Your task to perform on an android device: open chrome and create a bookmark for the current page Image 0: 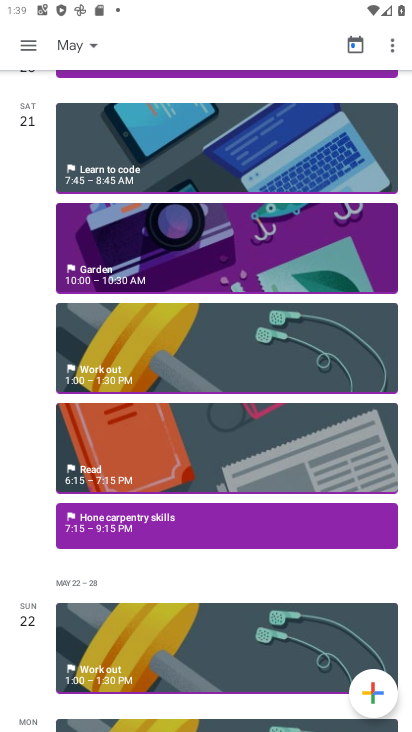
Step 0: press home button
Your task to perform on an android device: open chrome and create a bookmark for the current page Image 1: 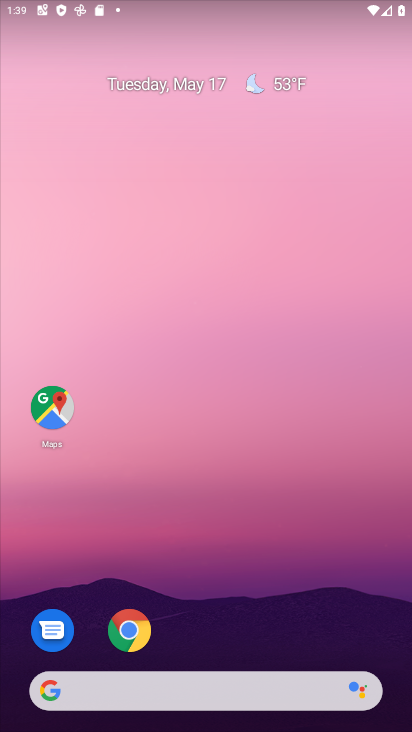
Step 1: drag from (217, 714) to (263, 217)
Your task to perform on an android device: open chrome and create a bookmark for the current page Image 2: 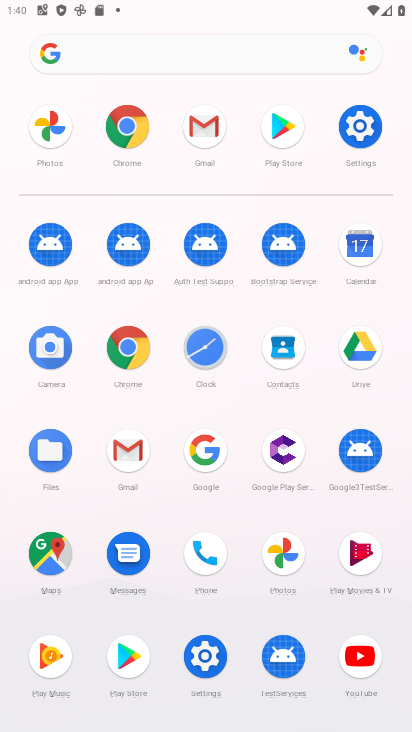
Step 2: click (131, 366)
Your task to perform on an android device: open chrome and create a bookmark for the current page Image 3: 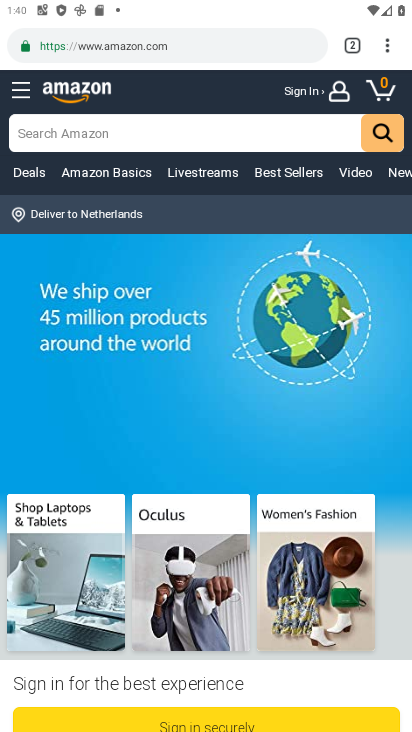
Step 3: click (227, 46)
Your task to perform on an android device: open chrome and create a bookmark for the current page Image 4: 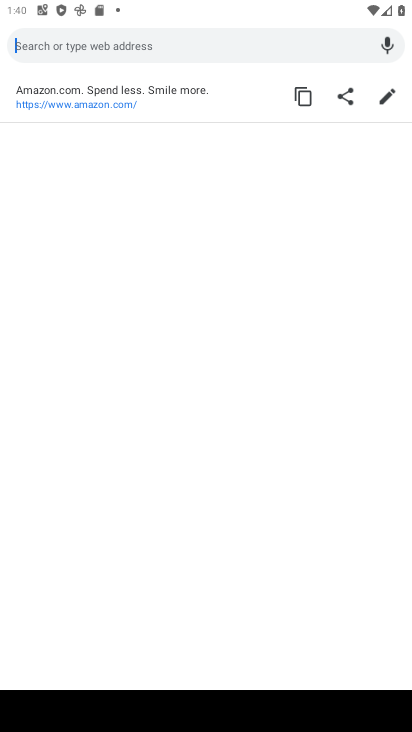
Step 4: type "fulurton"
Your task to perform on an android device: open chrome and create a bookmark for the current page Image 5: 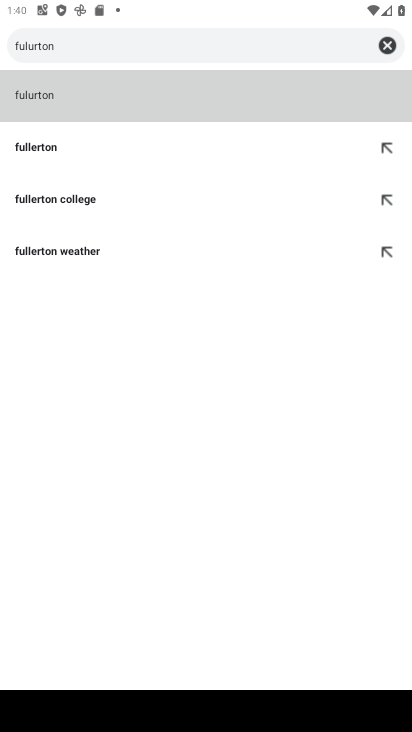
Step 5: click (66, 148)
Your task to perform on an android device: open chrome and create a bookmark for the current page Image 6: 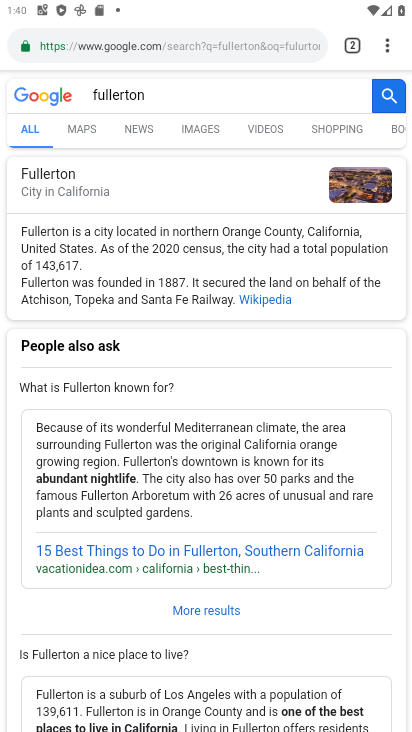
Step 6: drag from (129, 420) to (207, 103)
Your task to perform on an android device: open chrome and create a bookmark for the current page Image 7: 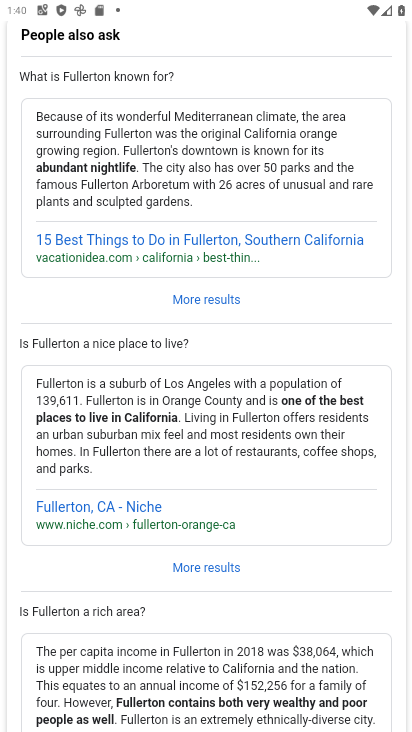
Step 7: click (136, 509)
Your task to perform on an android device: open chrome and create a bookmark for the current page Image 8: 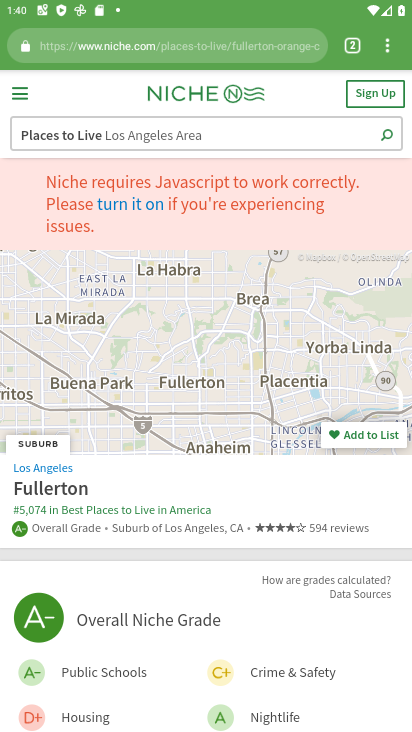
Step 8: click (390, 53)
Your task to perform on an android device: open chrome and create a bookmark for the current page Image 9: 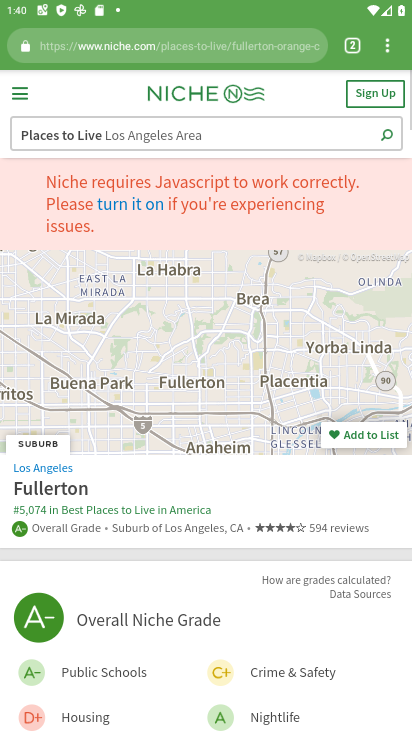
Step 9: click (390, 53)
Your task to perform on an android device: open chrome and create a bookmark for the current page Image 10: 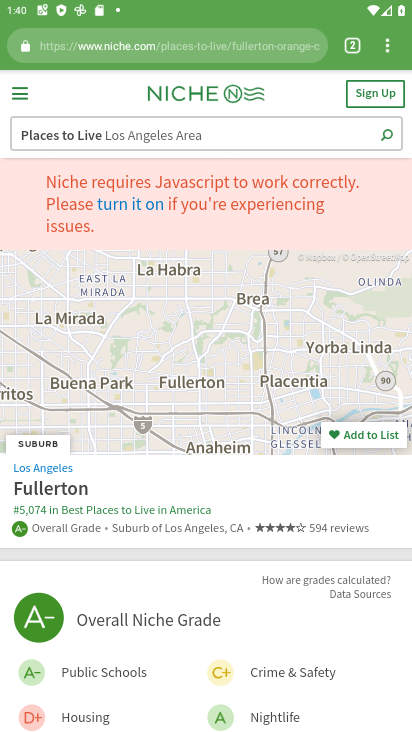
Step 10: click (388, 43)
Your task to perform on an android device: open chrome and create a bookmark for the current page Image 11: 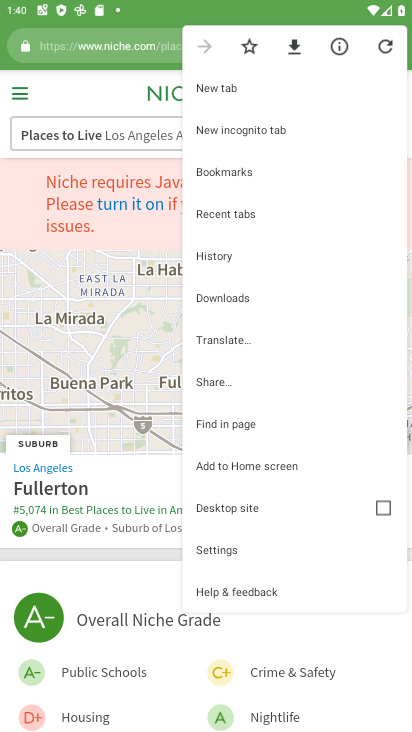
Step 11: click (246, 53)
Your task to perform on an android device: open chrome and create a bookmark for the current page Image 12: 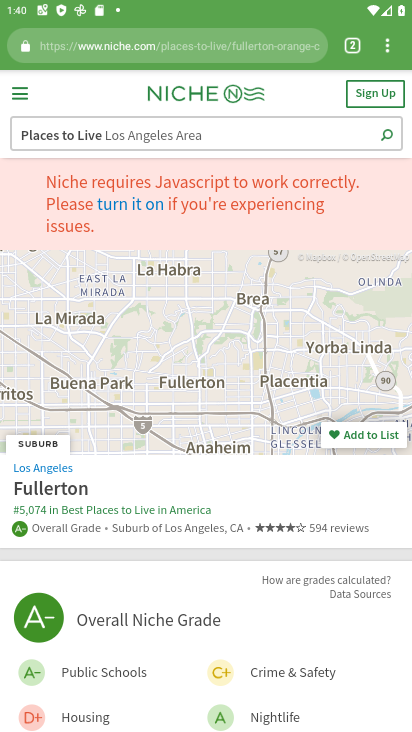
Step 12: task complete